Your task to perform on an android device: Open Wikipedia Image 0: 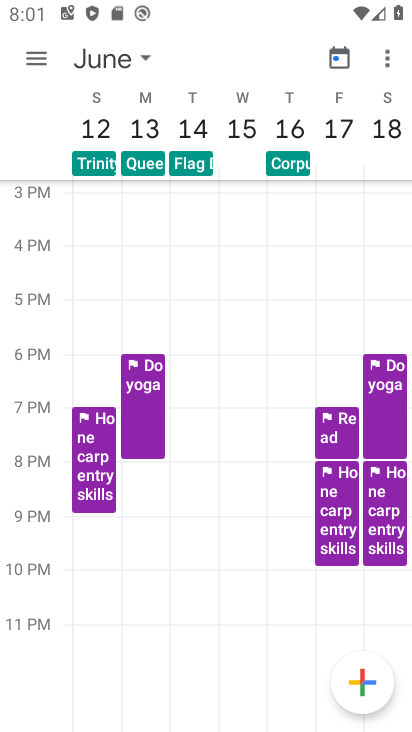
Step 0: press home button
Your task to perform on an android device: Open Wikipedia Image 1: 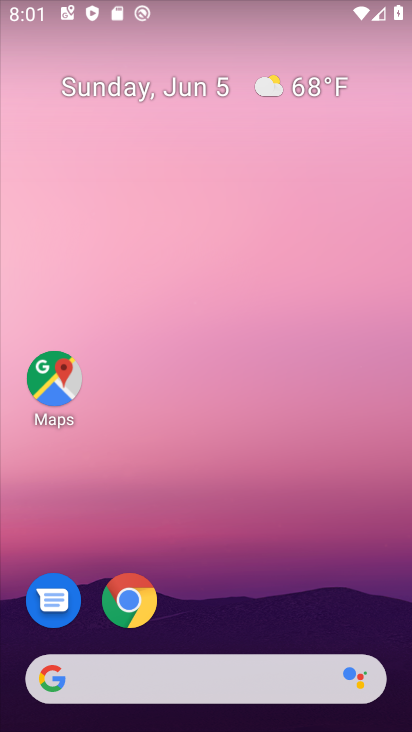
Step 1: click (134, 587)
Your task to perform on an android device: Open Wikipedia Image 2: 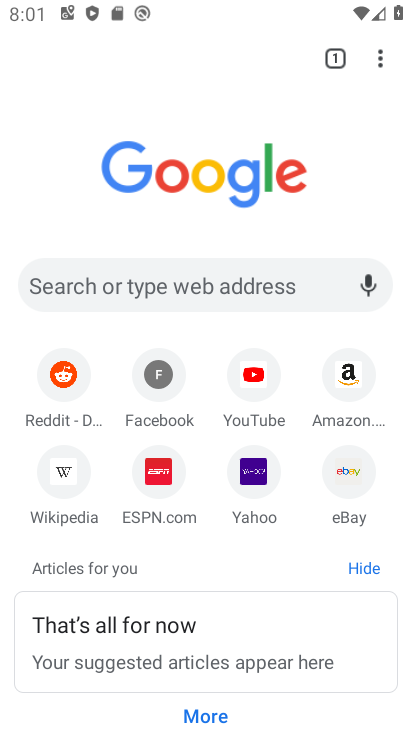
Step 2: click (67, 459)
Your task to perform on an android device: Open Wikipedia Image 3: 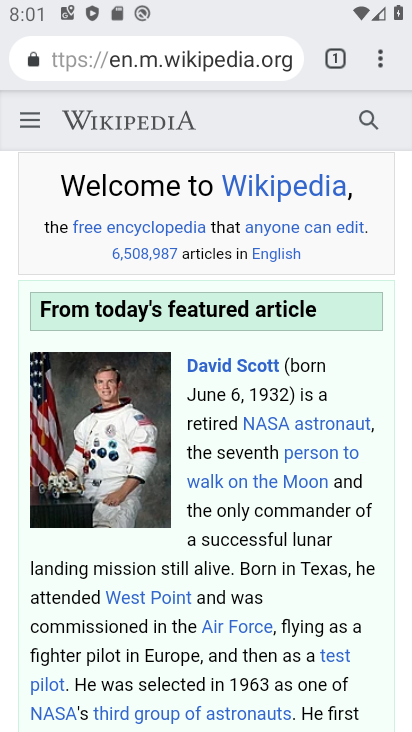
Step 3: task complete